Your task to perform on an android device: visit the assistant section in the google photos Image 0: 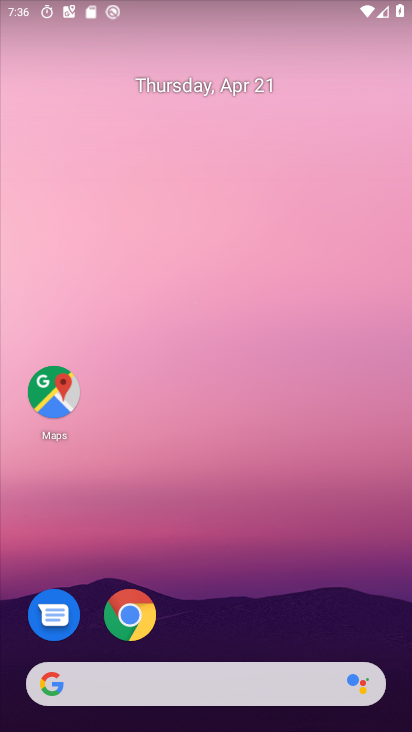
Step 0: drag from (131, 675) to (280, 238)
Your task to perform on an android device: visit the assistant section in the google photos Image 1: 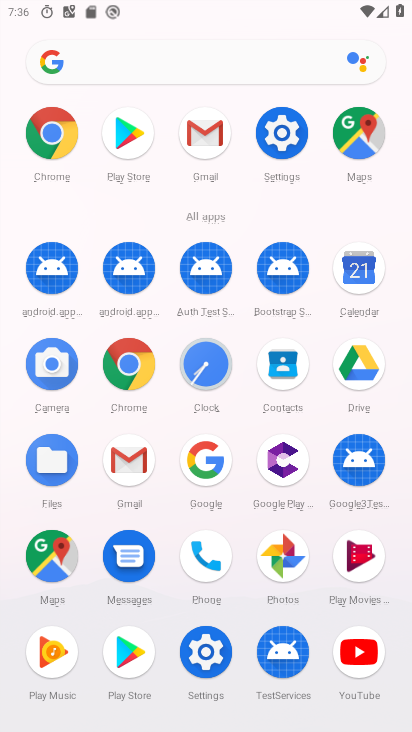
Step 1: click (279, 546)
Your task to perform on an android device: visit the assistant section in the google photos Image 2: 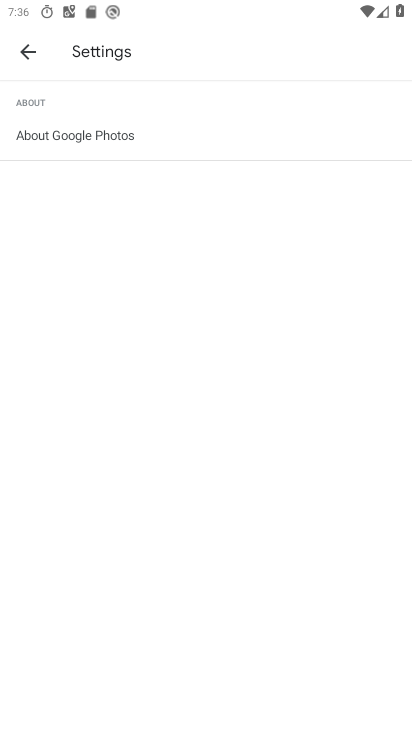
Step 2: click (32, 50)
Your task to perform on an android device: visit the assistant section in the google photos Image 3: 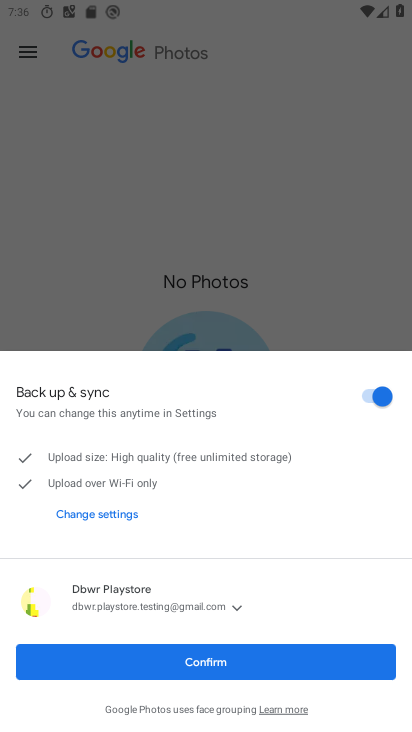
Step 3: click (206, 658)
Your task to perform on an android device: visit the assistant section in the google photos Image 4: 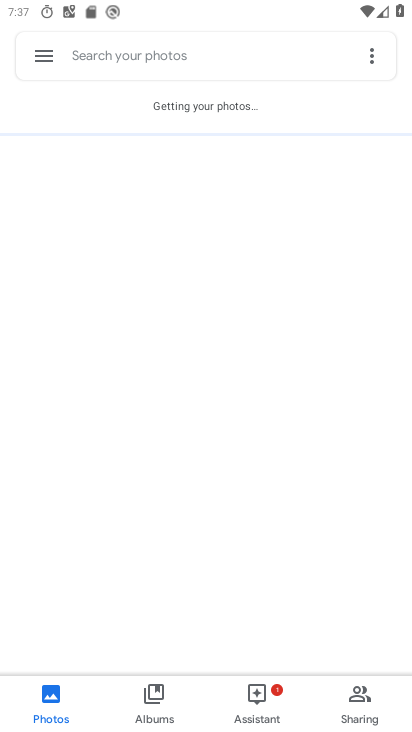
Step 4: click (265, 712)
Your task to perform on an android device: visit the assistant section in the google photos Image 5: 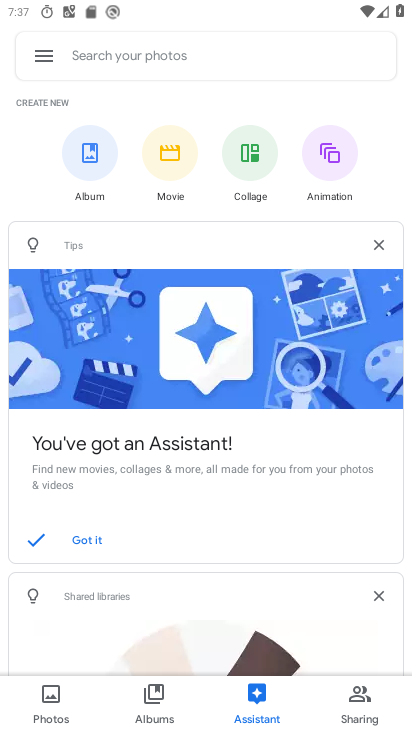
Step 5: task complete